Your task to perform on an android device: Open Google Maps and go to "Timeline" Image 0: 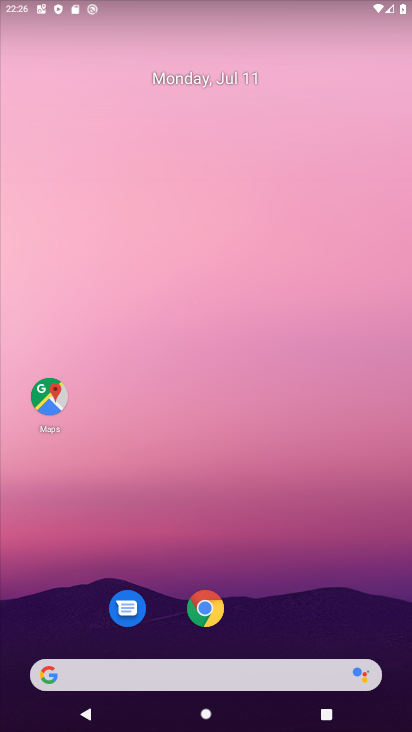
Step 0: click (46, 406)
Your task to perform on an android device: Open Google Maps and go to "Timeline" Image 1: 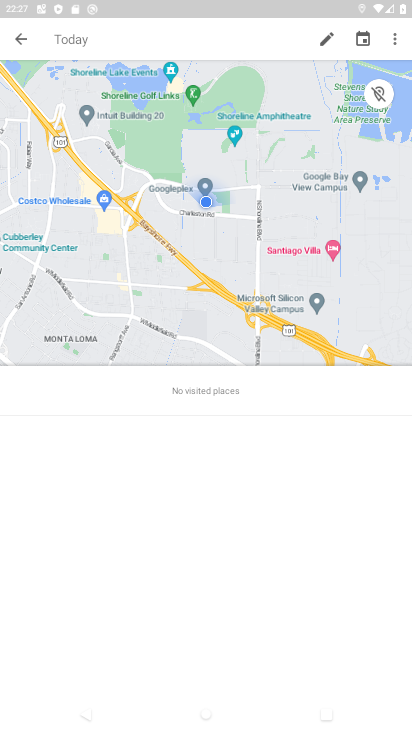
Step 1: click (7, 37)
Your task to perform on an android device: Open Google Maps and go to "Timeline" Image 2: 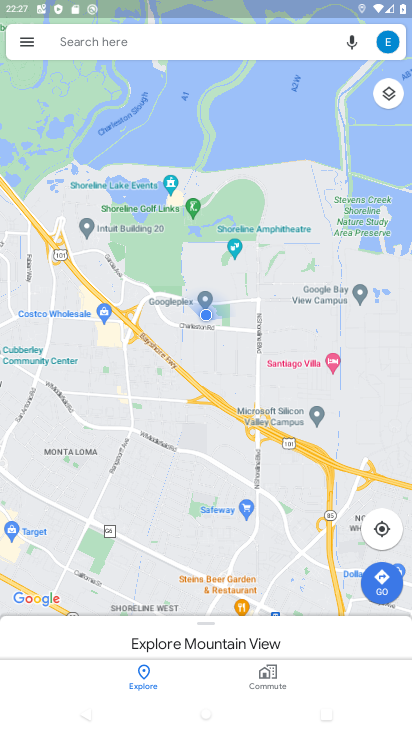
Step 2: click (26, 39)
Your task to perform on an android device: Open Google Maps and go to "Timeline" Image 3: 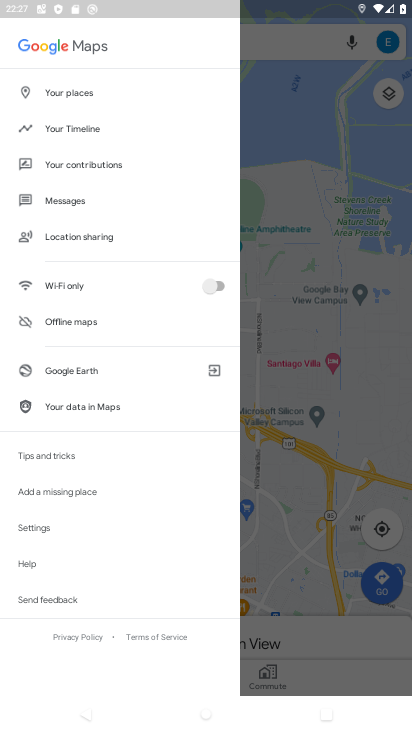
Step 3: click (60, 121)
Your task to perform on an android device: Open Google Maps and go to "Timeline" Image 4: 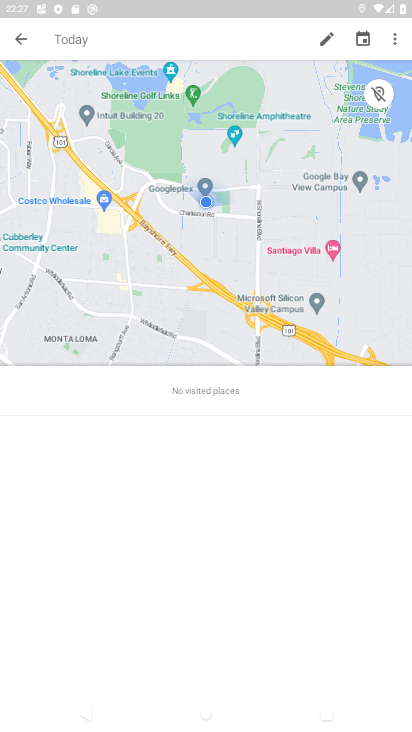
Step 4: task complete